Your task to perform on an android device: Go to location settings Image 0: 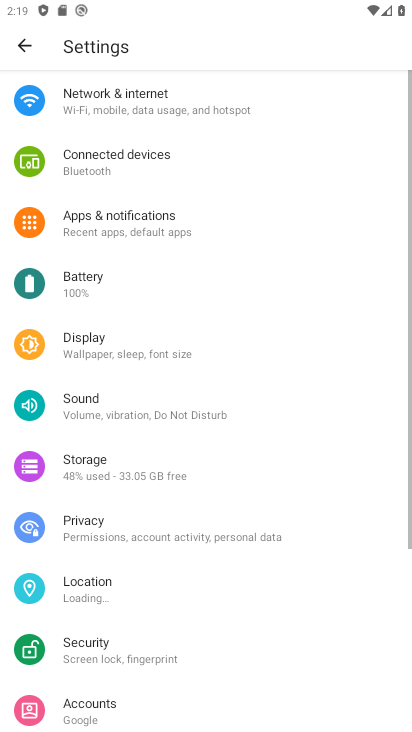
Step 0: press home button
Your task to perform on an android device: Go to location settings Image 1: 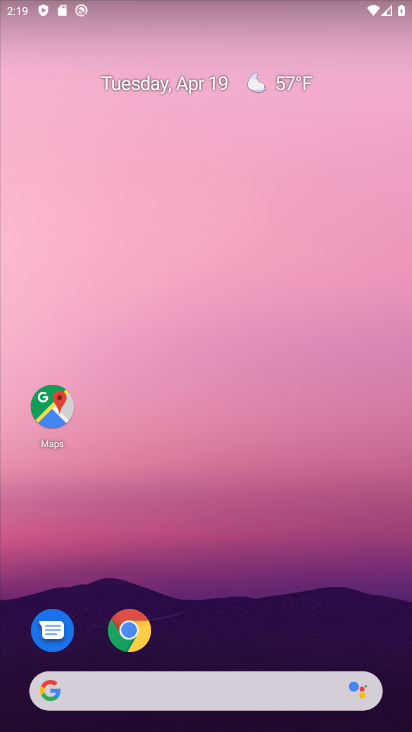
Step 1: drag from (241, 510) to (241, 77)
Your task to perform on an android device: Go to location settings Image 2: 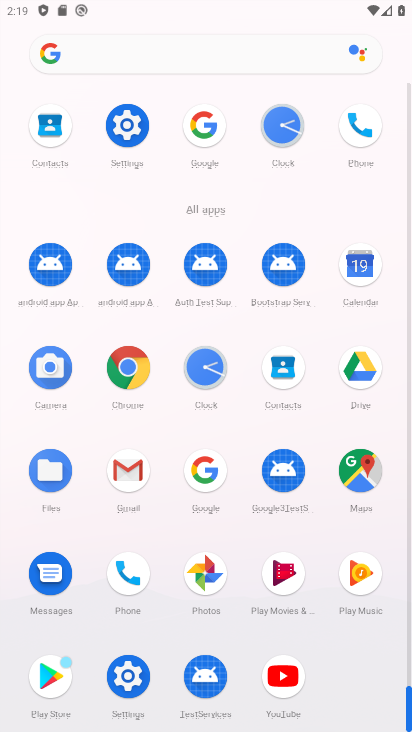
Step 2: click (126, 140)
Your task to perform on an android device: Go to location settings Image 3: 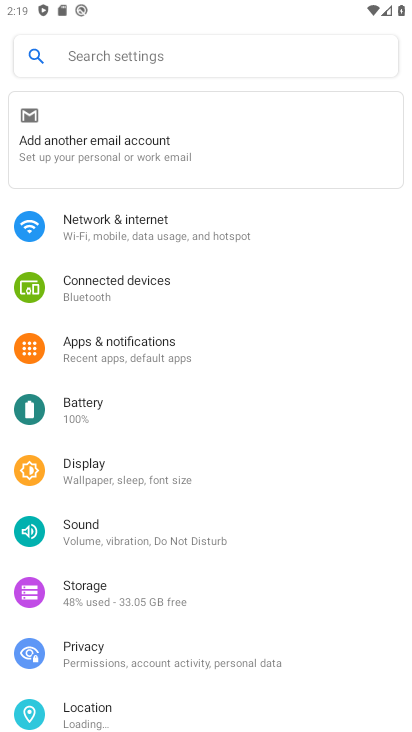
Step 3: click (141, 704)
Your task to perform on an android device: Go to location settings Image 4: 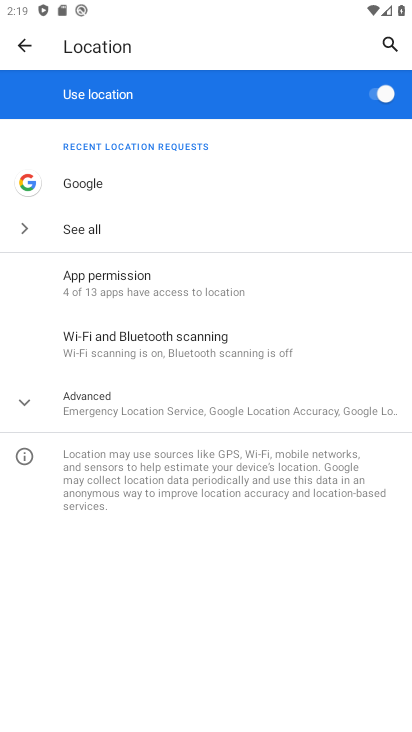
Step 4: task complete